Your task to perform on an android device: turn on sleep mode Image 0: 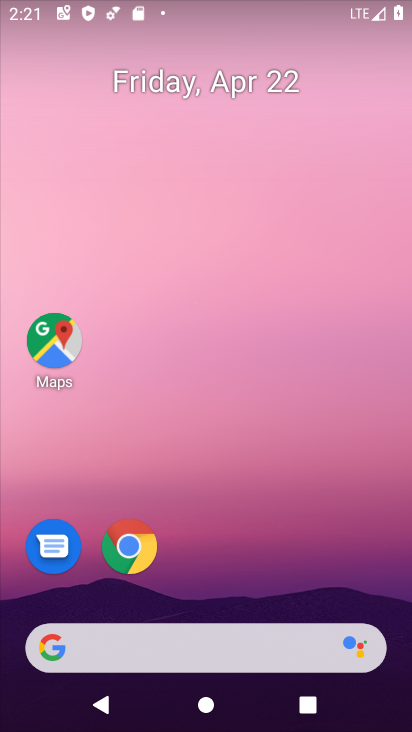
Step 0: drag from (257, 520) to (325, 151)
Your task to perform on an android device: turn on sleep mode Image 1: 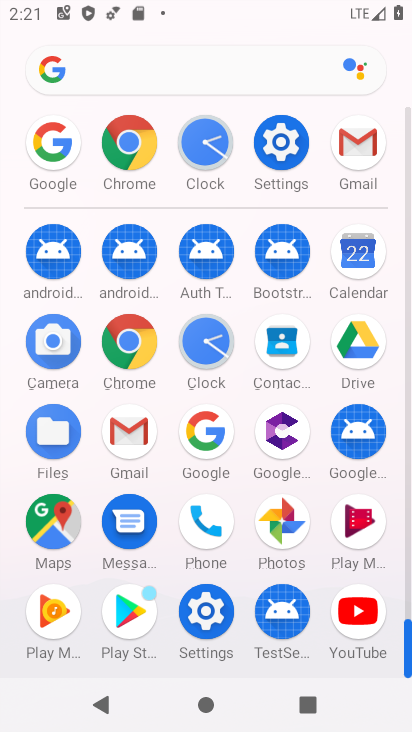
Step 1: click (223, 620)
Your task to perform on an android device: turn on sleep mode Image 2: 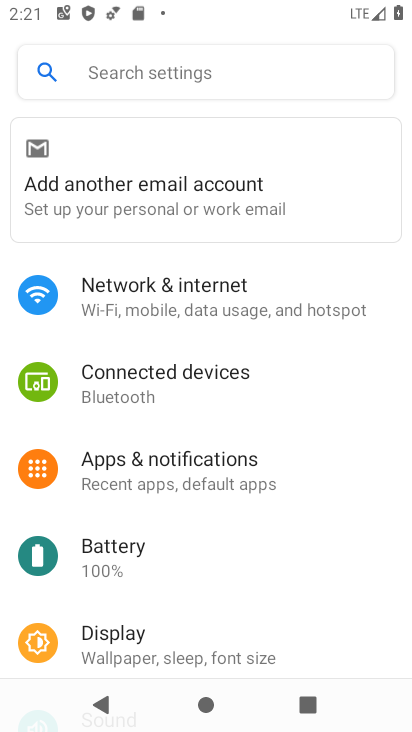
Step 2: drag from (271, 483) to (306, 340)
Your task to perform on an android device: turn on sleep mode Image 3: 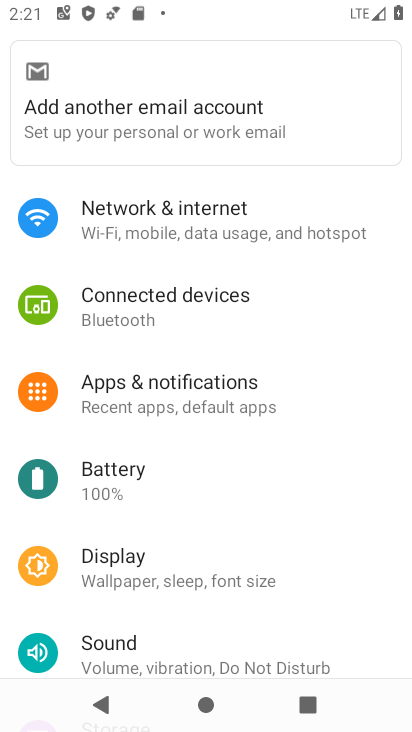
Step 3: click (243, 574)
Your task to perform on an android device: turn on sleep mode Image 4: 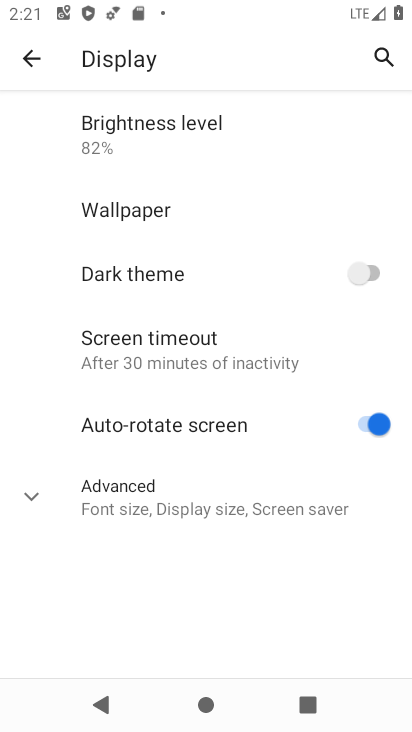
Step 4: click (247, 517)
Your task to perform on an android device: turn on sleep mode Image 5: 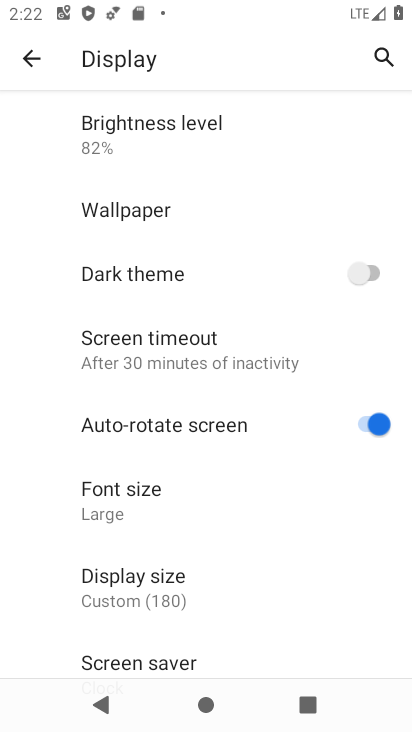
Step 5: click (249, 551)
Your task to perform on an android device: turn on sleep mode Image 6: 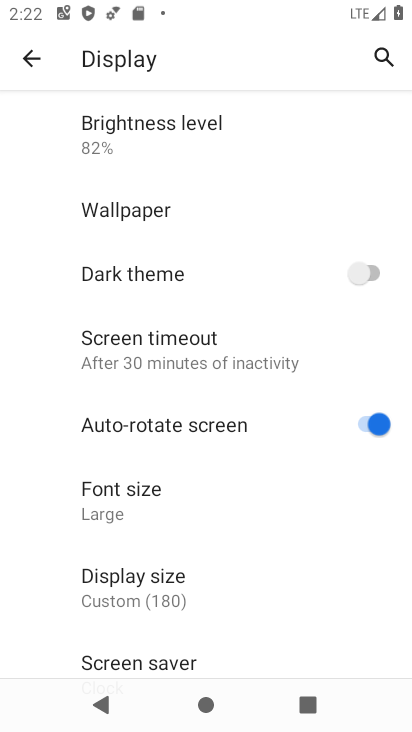
Step 6: task complete